Your task to perform on an android device: Open notification settings Image 0: 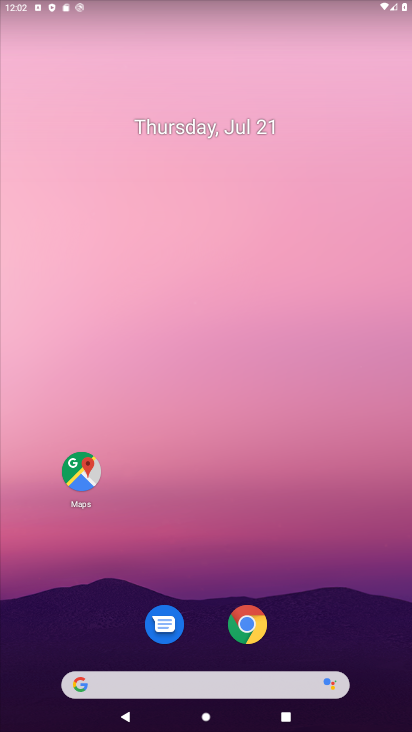
Step 0: drag from (184, 399) to (184, 181)
Your task to perform on an android device: Open notification settings Image 1: 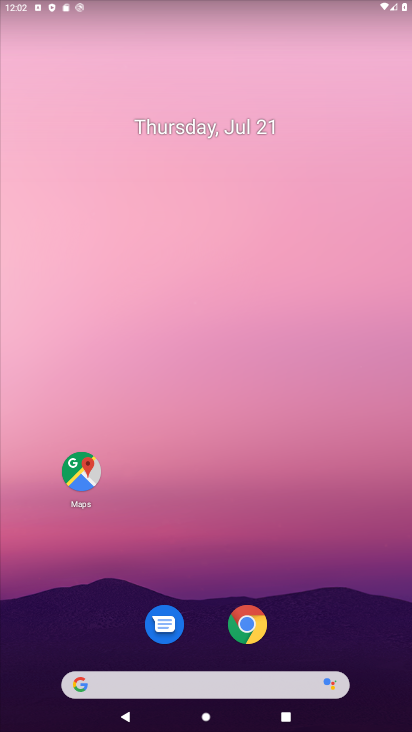
Step 1: drag from (214, 609) to (224, 158)
Your task to perform on an android device: Open notification settings Image 2: 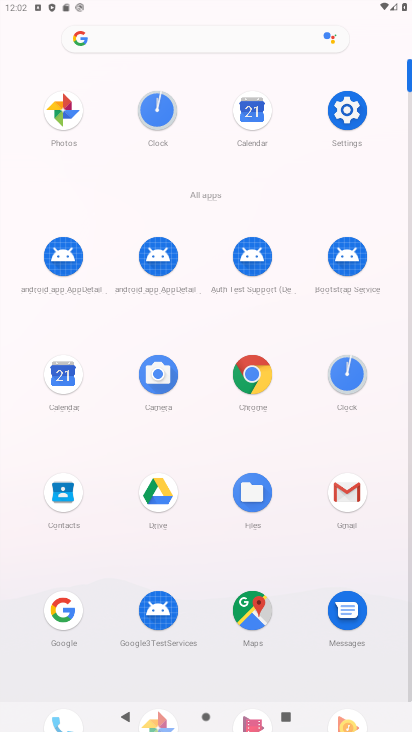
Step 2: click (338, 113)
Your task to perform on an android device: Open notification settings Image 3: 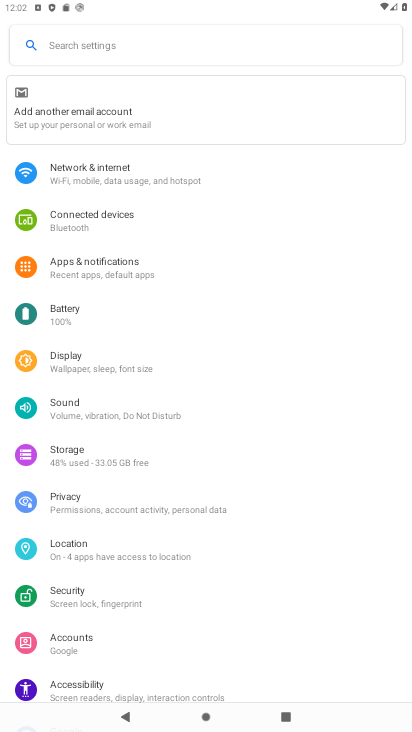
Step 3: click (122, 275)
Your task to perform on an android device: Open notification settings Image 4: 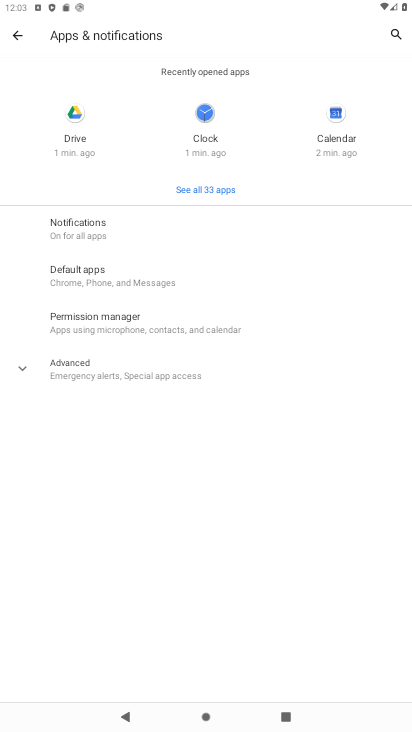
Step 4: click (128, 219)
Your task to perform on an android device: Open notification settings Image 5: 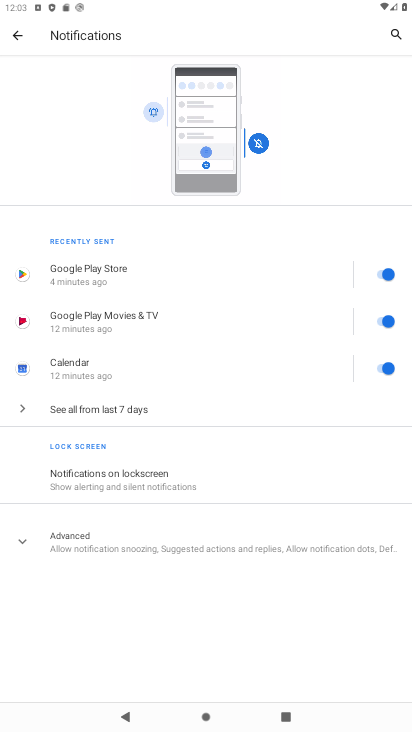
Step 5: task complete